Your task to perform on an android device: Open eBay Image 0: 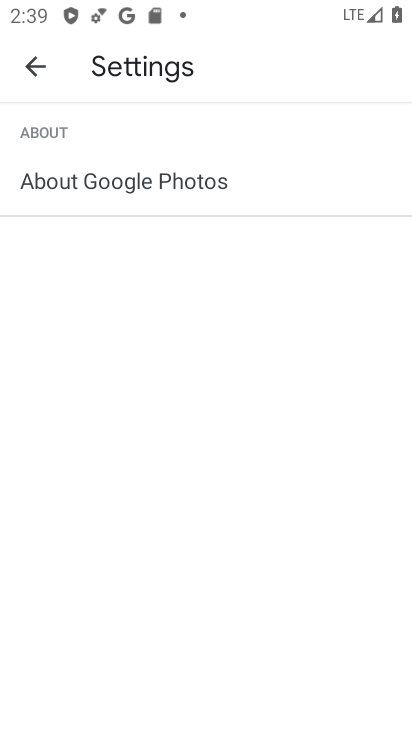
Step 0: press home button
Your task to perform on an android device: Open eBay Image 1: 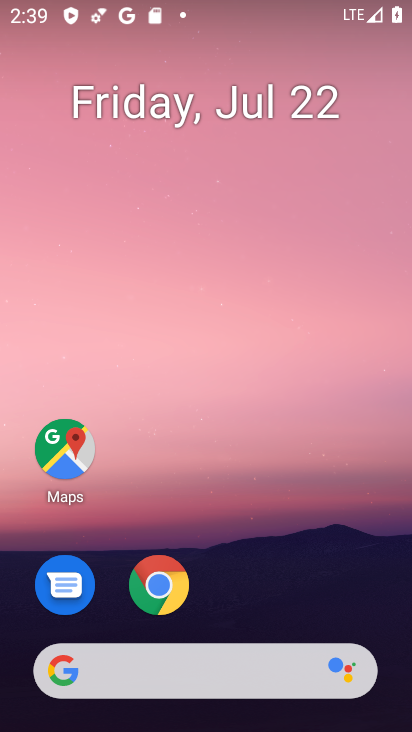
Step 1: click (187, 675)
Your task to perform on an android device: Open eBay Image 2: 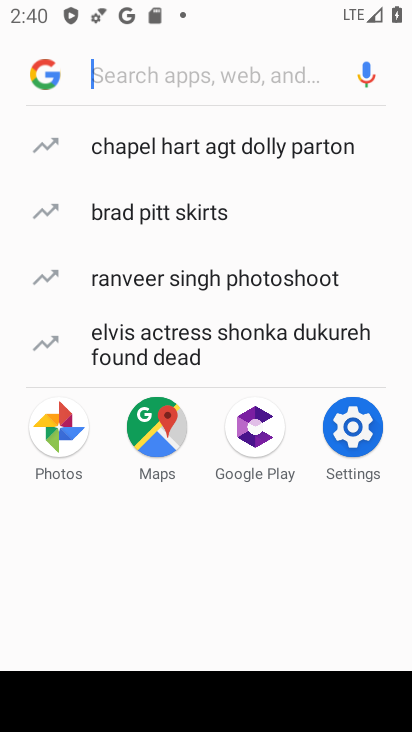
Step 2: type "ebay"
Your task to perform on an android device: Open eBay Image 3: 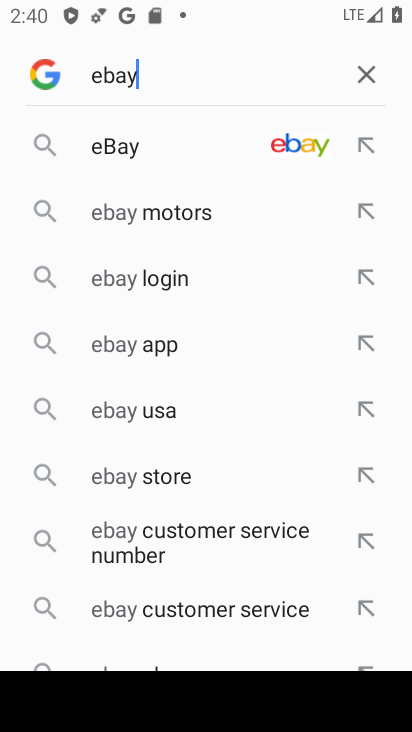
Step 3: click (313, 137)
Your task to perform on an android device: Open eBay Image 4: 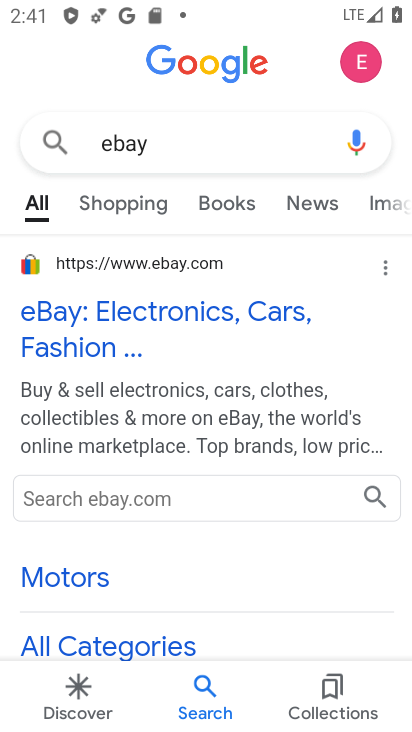
Step 4: click (75, 310)
Your task to perform on an android device: Open eBay Image 5: 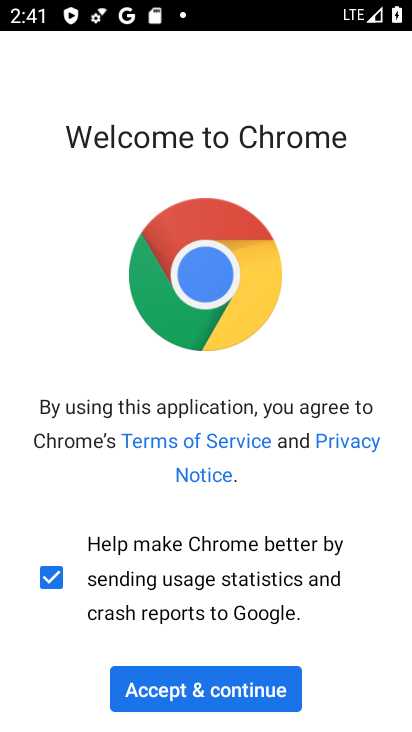
Step 5: click (281, 689)
Your task to perform on an android device: Open eBay Image 6: 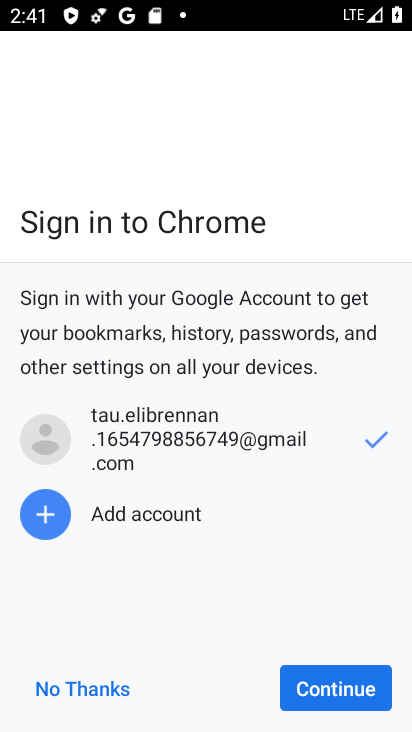
Step 6: click (326, 692)
Your task to perform on an android device: Open eBay Image 7: 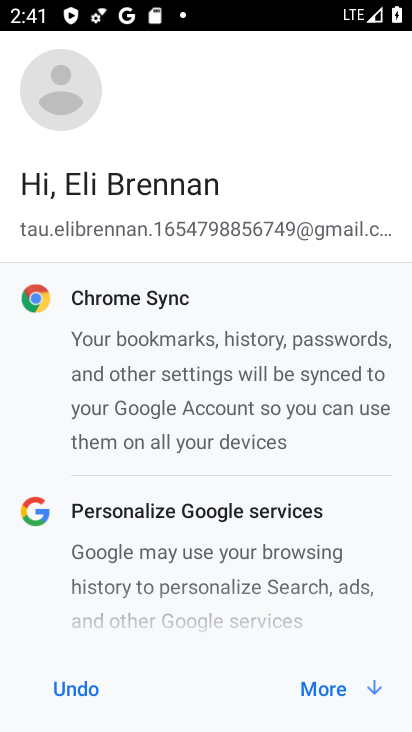
Step 7: click (331, 687)
Your task to perform on an android device: Open eBay Image 8: 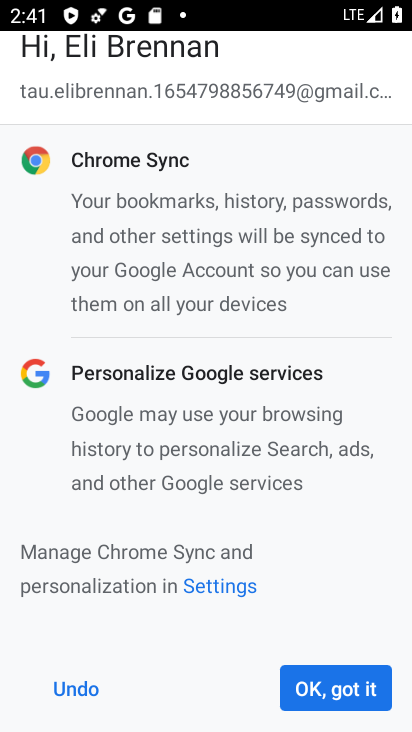
Step 8: click (331, 687)
Your task to perform on an android device: Open eBay Image 9: 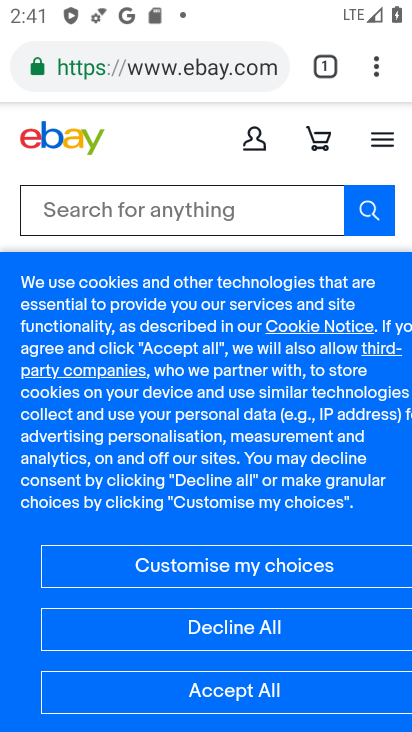
Step 9: task complete